Your task to perform on an android device: find which apps use the phone's location Image 0: 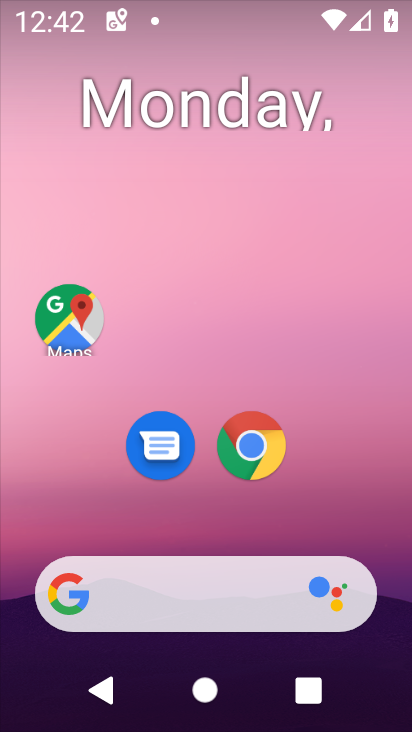
Step 0: drag from (344, 490) to (261, 97)
Your task to perform on an android device: find which apps use the phone's location Image 1: 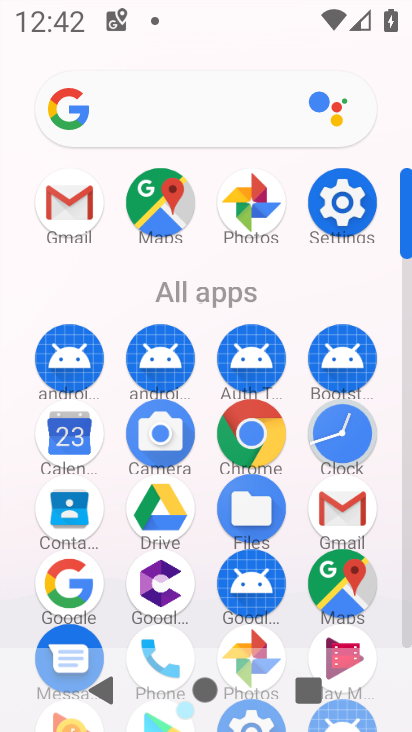
Step 1: click (342, 203)
Your task to perform on an android device: find which apps use the phone's location Image 2: 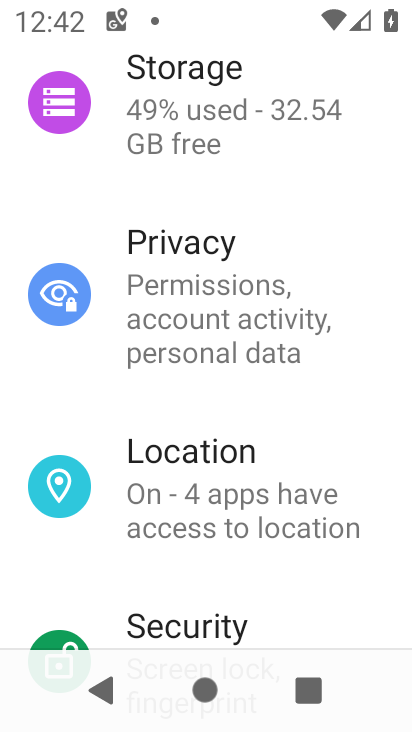
Step 2: click (223, 447)
Your task to perform on an android device: find which apps use the phone's location Image 3: 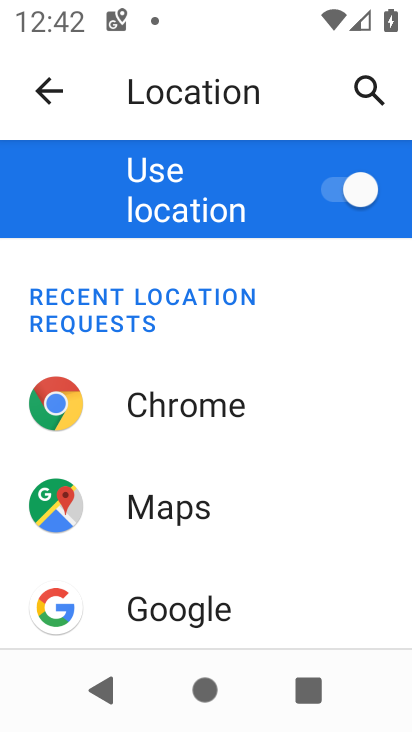
Step 3: drag from (243, 534) to (270, 361)
Your task to perform on an android device: find which apps use the phone's location Image 4: 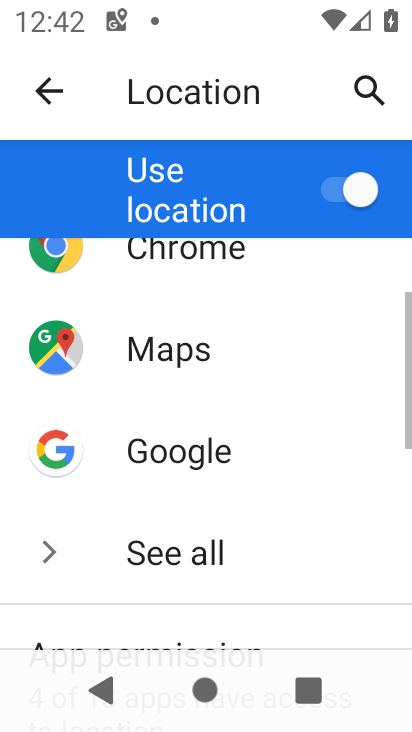
Step 4: drag from (285, 551) to (317, 379)
Your task to perform on an android device: find which apps use the phone's location Image 5: 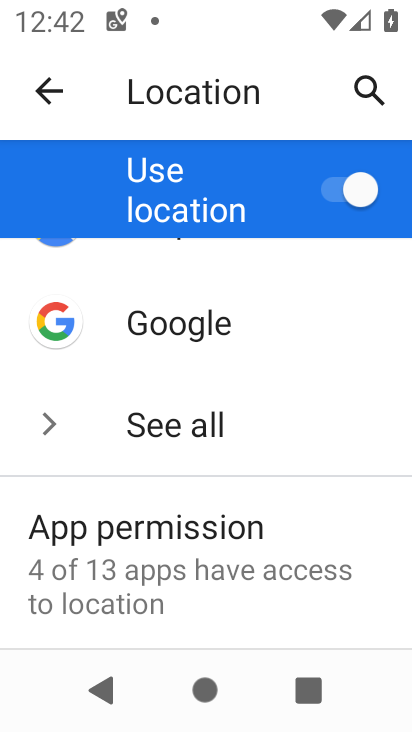
Step 5: click (218, 550)
Your task to perform on an android device: find which apps use the phone's location Image 6: 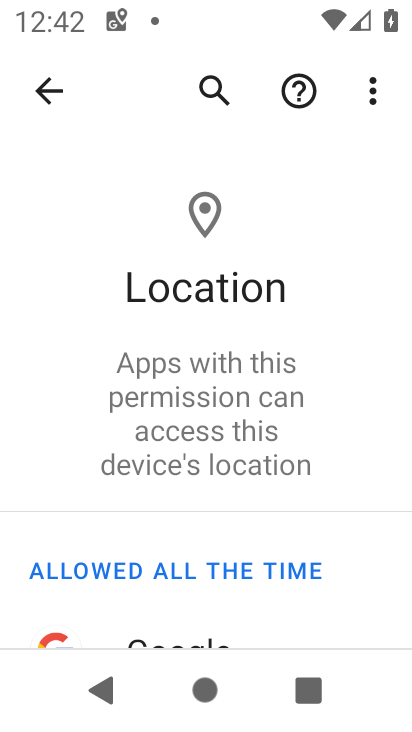
Step 6: drag from (255, 529) to (296, 343)
Your task to perform on an android device: find which apps use the phone's location Image 7: 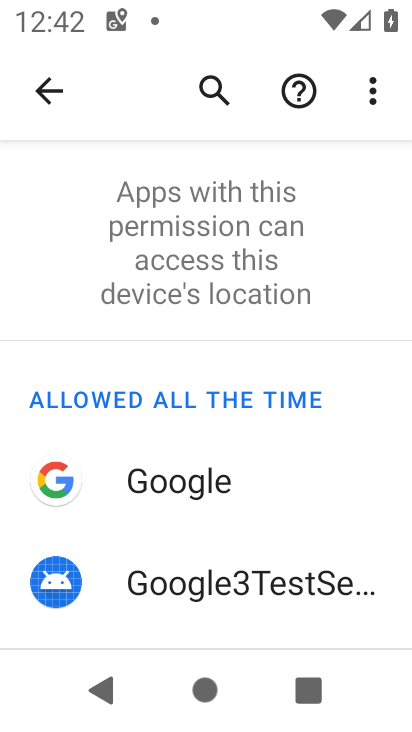
Step 7: drag from (219, 528) to (258, 340)
Your task to perform on an android device: find which apps use the phone's location Image 8: 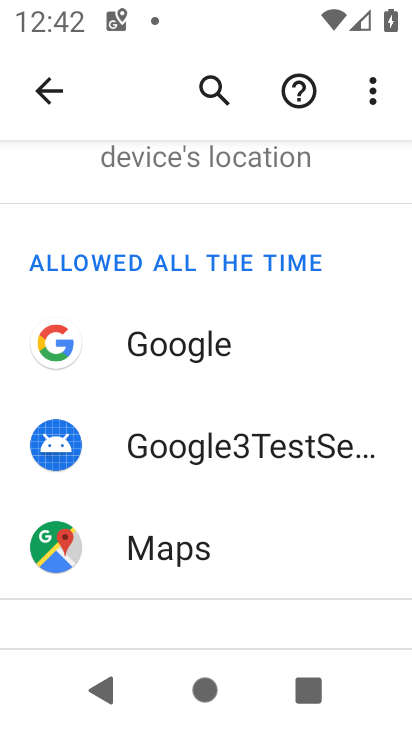
Step 8: click (191, 544)
Your task to perform on an android device: find which apps use the phone's location Image 9: 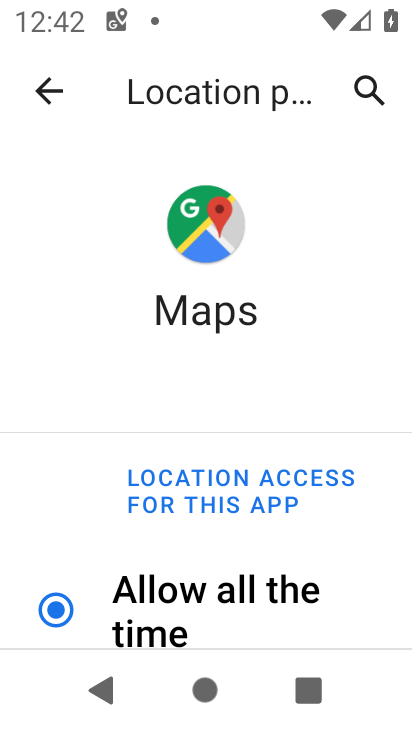
Step 9: task complete